Your task to perform on an android device: turn off notifications settings in the gmail app Image 0: 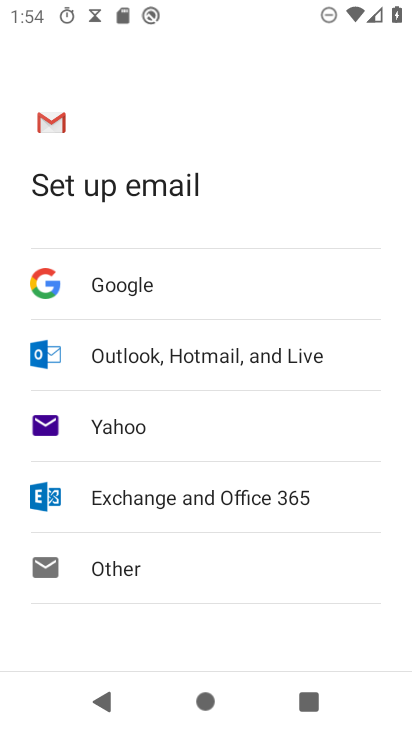
Step 0: press home button
Your task to perform on an android device: turn off notifications settings in the gmail app Image 1: 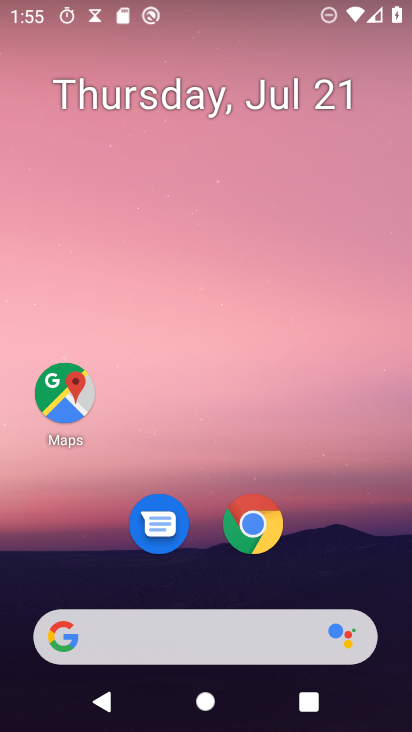
Step 1: drag from (176, 634) to (263, 65)
Your task to perform on an android device: turn off notifications settings in the gmail app Image 2: 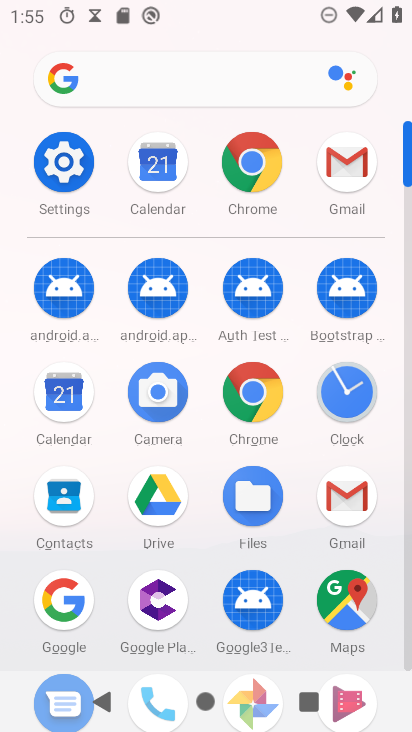
Step 2: click (350, 170)
Your task to perform on an android device: turn off notifications settings in the gmail app Image 3: 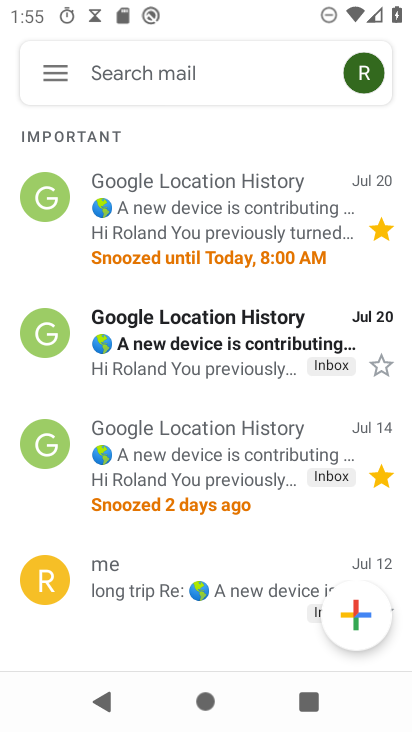
Step 3: click (60, 69)
Your task to perform on an android device: turn off notifications settings in the gmail app Image 4: 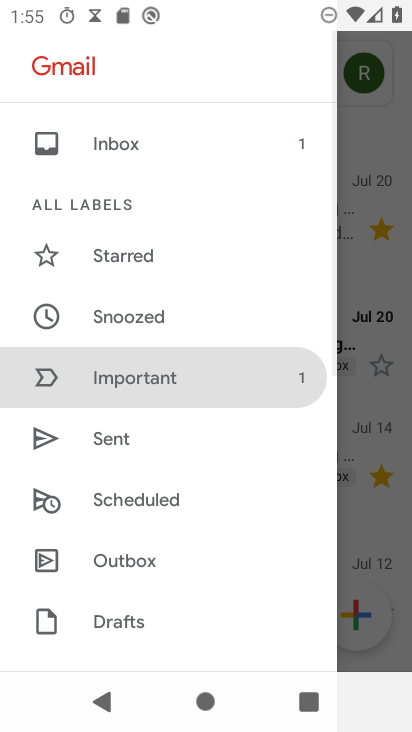
Step 4: drag from (183, 606) to (234, 53)
Your task to perform on an android device: turn off notifications settings in the gmail app Image 5: 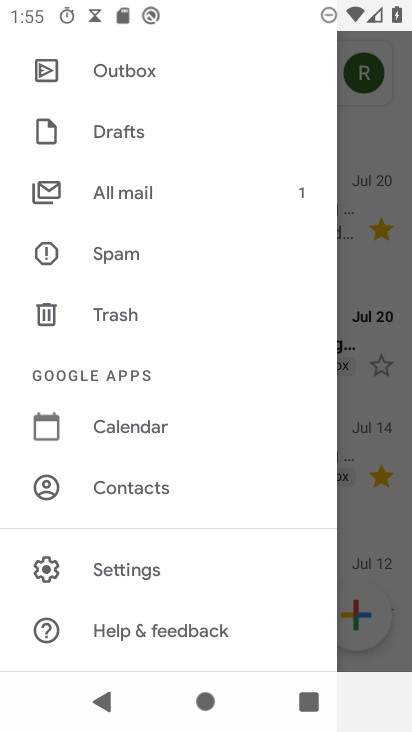
Step 5: click (141, 571)
Your task to perform on an android device: turn off notifications settings in the gmail app Image 6: 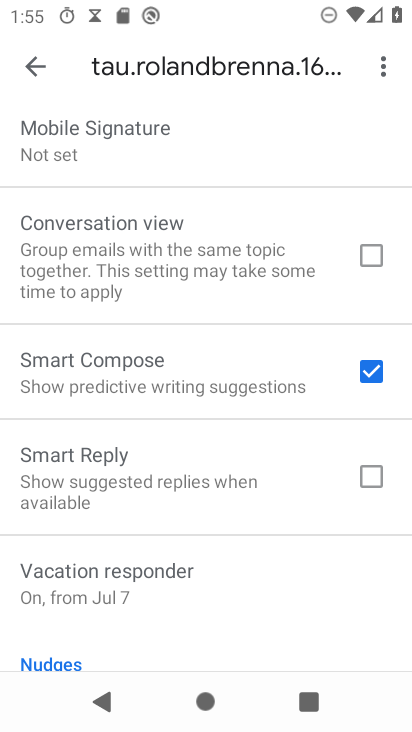
Step 6: drag from (294, 147) to (188, 604)
Your task to perform on an android device: turn off notifications settings in the gmail app Image 7: 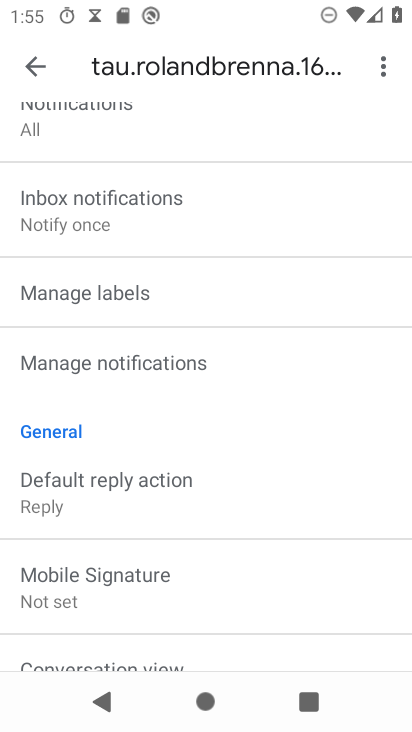
Step 7: drag from (261, 190) to (209, 561)
Your task to perform on an android device: turn off notifications settings in the gmail app Image 8: 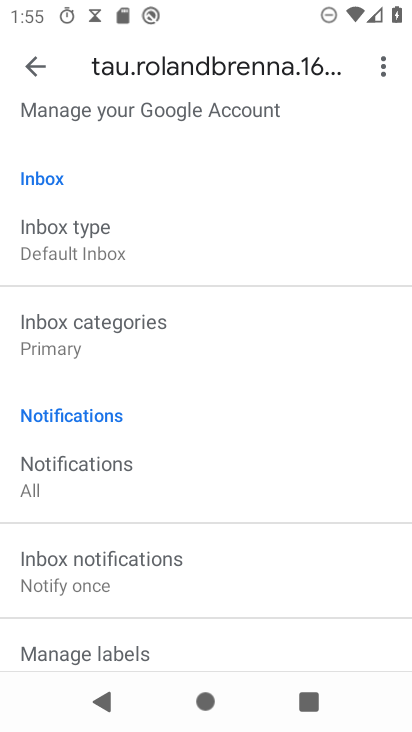
Step 8: click (80, 472)
Your task to perform on an android device: turn off notifications settings in the gmail app Image 9: 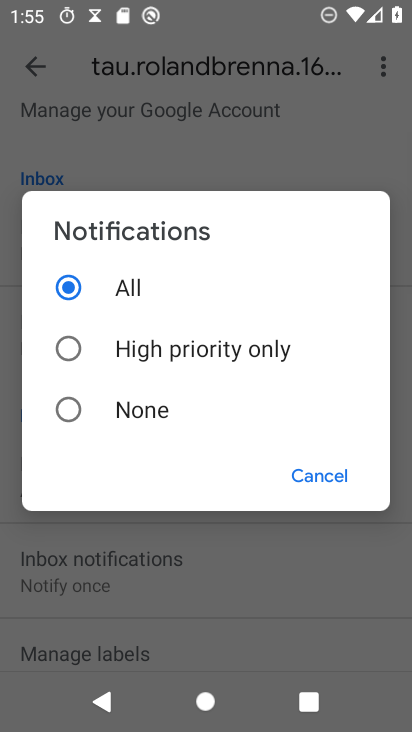
Step 9: click (68, 400)
Your task to perform on an android device: turn off notifications settings in the gmail app Image 10: 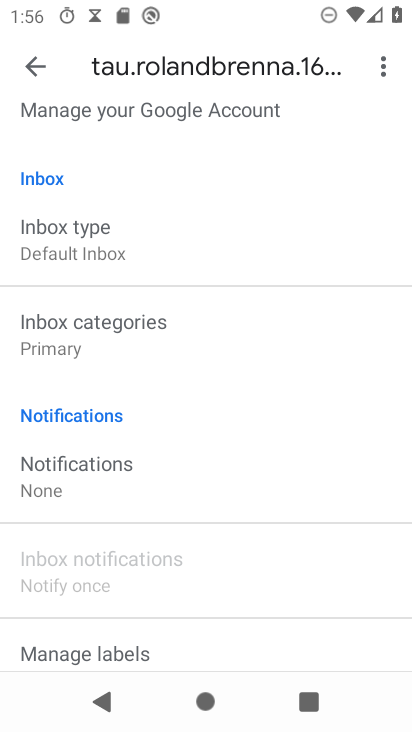
Step 10: task complete